Your task to perform on an android device: open wifi settings Image 0: 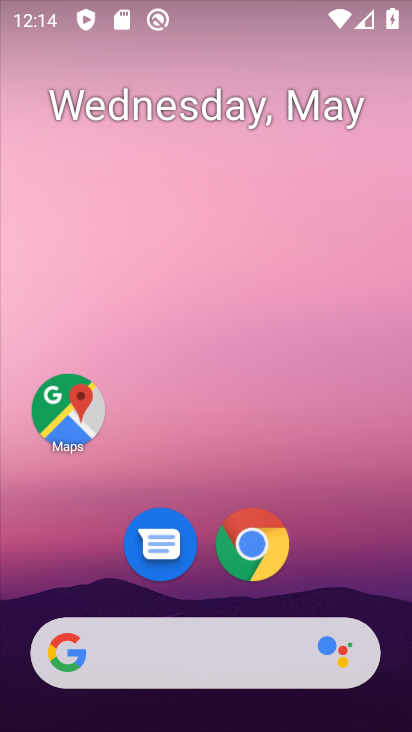
Step 0: drag from (384, 515) to (305, 75)
Your task to perform on an android device: open wifi settings Image 1: 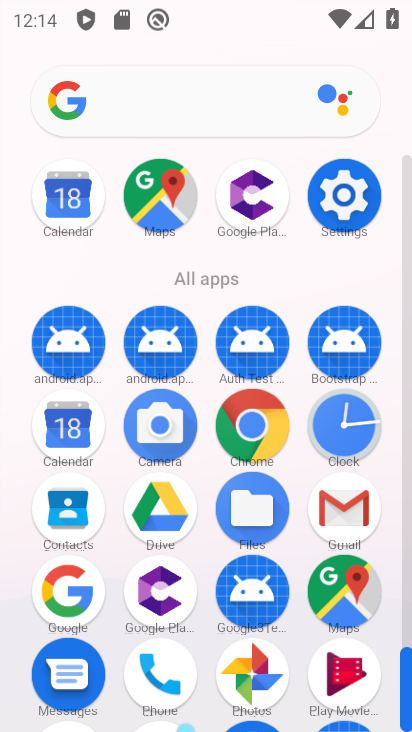
Step 1: click (345, 189)
Your task to perform on an android device: open wifi settings Image 2: 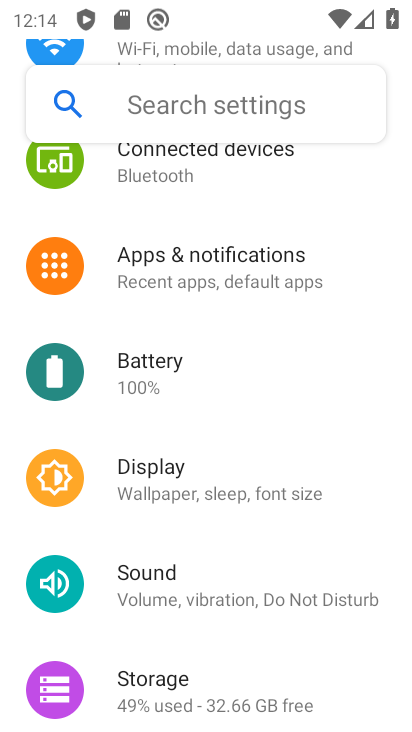
Step 2: drag from (333, 157) to (314, 527)
Your task to perform on an android device: open wifi settings Image 3: 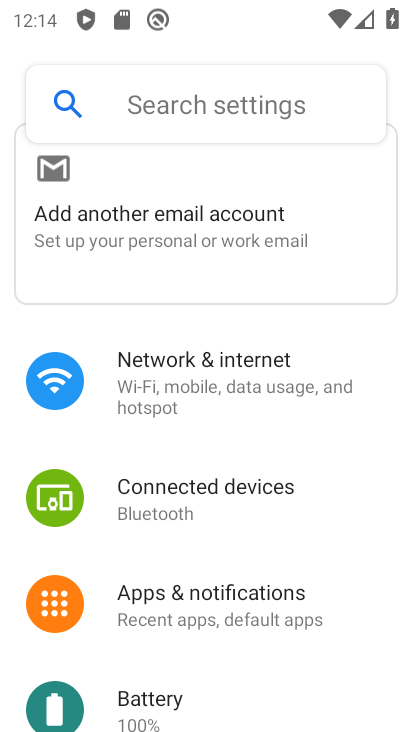
Step 3: click (255, 354)
Your task to perform on an android device: open wifi settings Image 4: 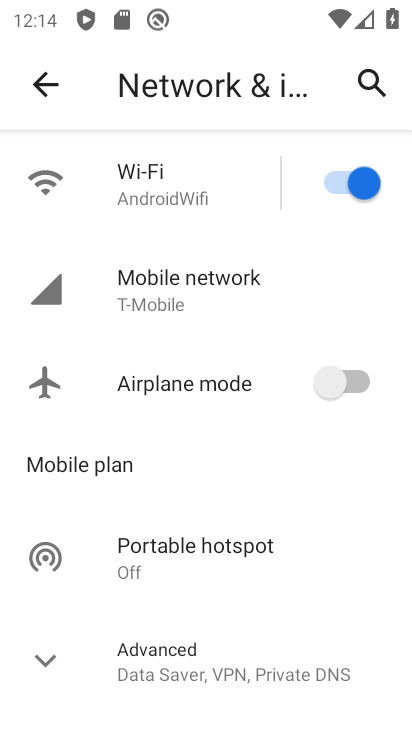
Step 4: click (196, 204)
Your task to perform on an android device: open wifi settings Image 5: 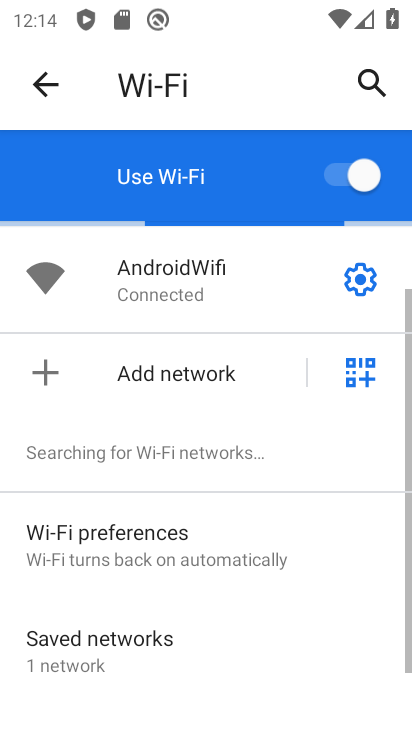
Step 5: click (362, 276)
Your task to perform on an android device: open wifi settings Image 6: 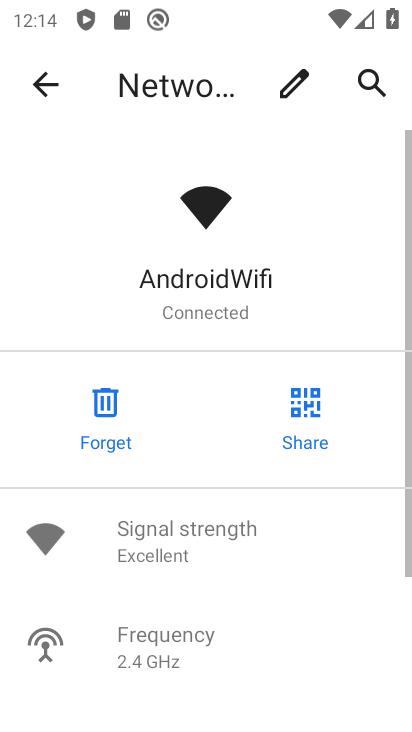
Step 6: task complete